Your task to perform on an android device: Go to Yahoo.com Image 0: 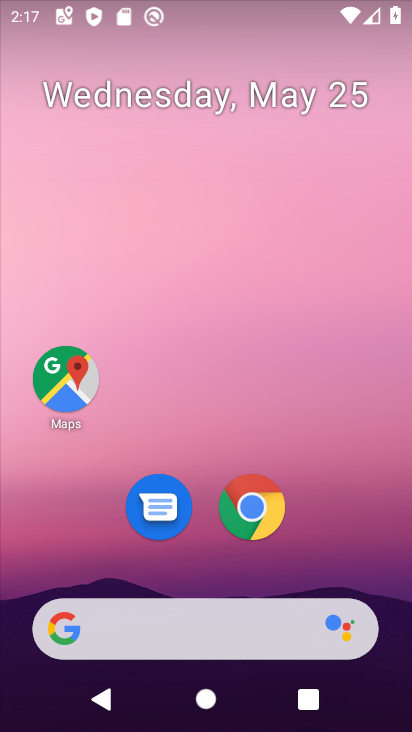
Step 0: click (260, 520)
Your task to perform on an android device: Go to Yahoo.com Image 1: 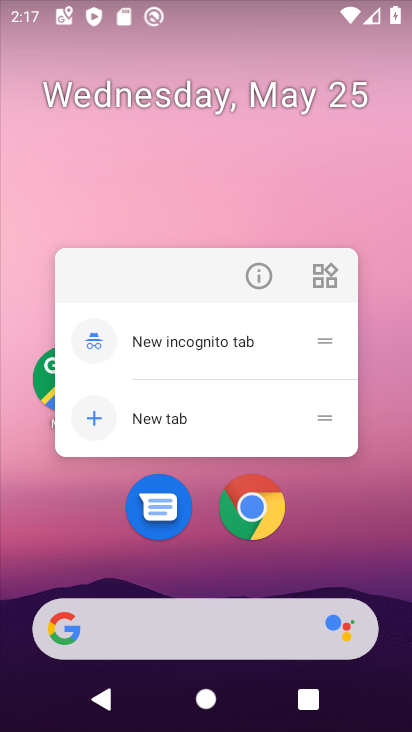
Step 1: click (252, 520)
Your task to perform on an android device: Go to Yahoo.com Image 2: 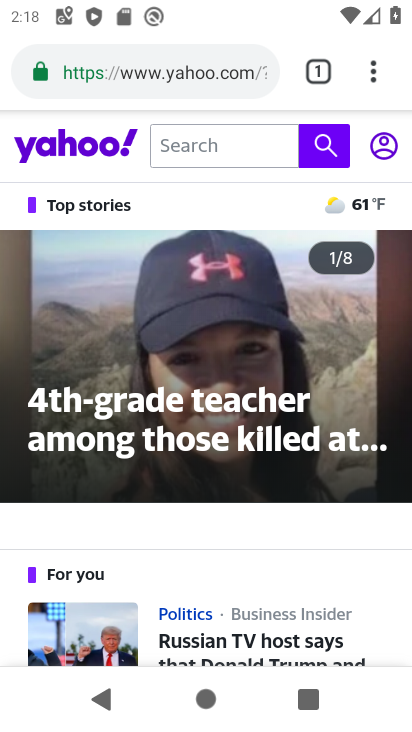
Step 2: task complete